Your task to perform on an android device: Open the contacts app Image 0: 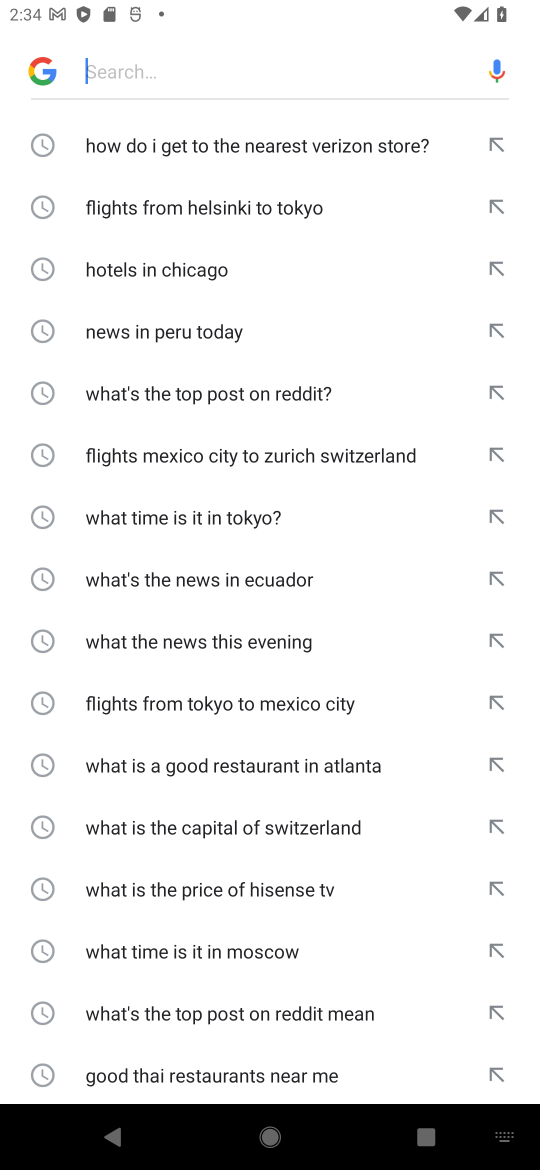
Step 0: press home button
Your task to perform on an android device: Open the contacts app Image 1: 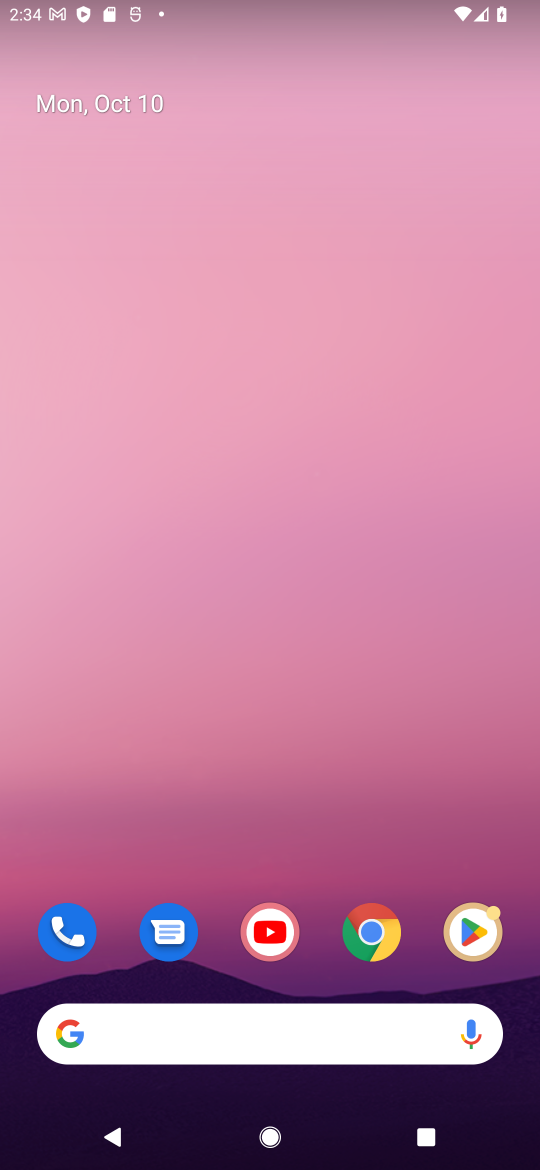
Step 1: drag from (496, 845) to (454, 247)
Your task to perform on an android device: Open the contacts app Image 2: 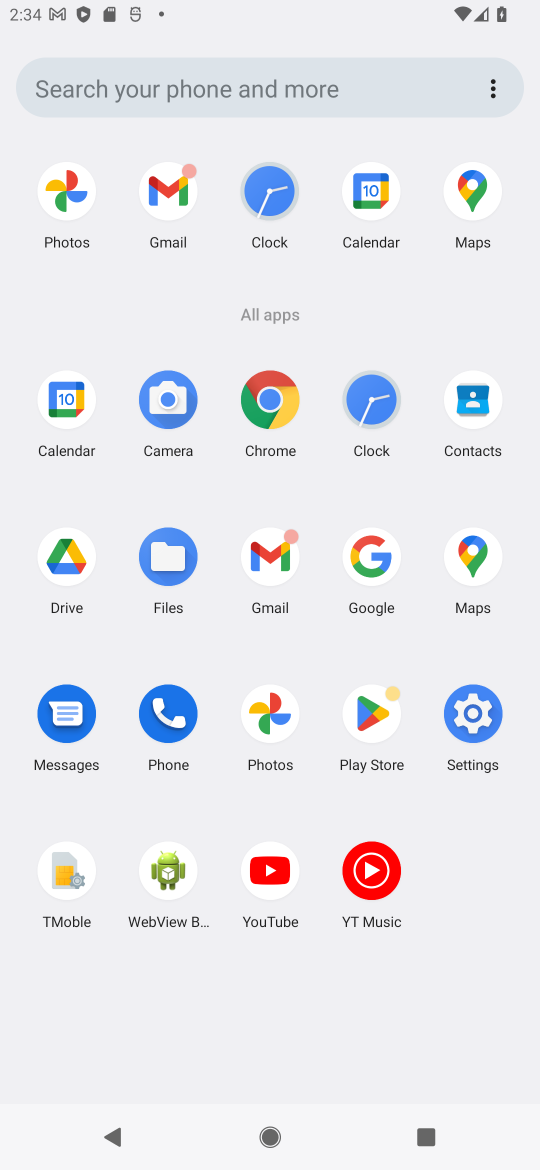
Step 2: click (488, 401)
Your task to perform on an android device: Open the contacts app Image 3: 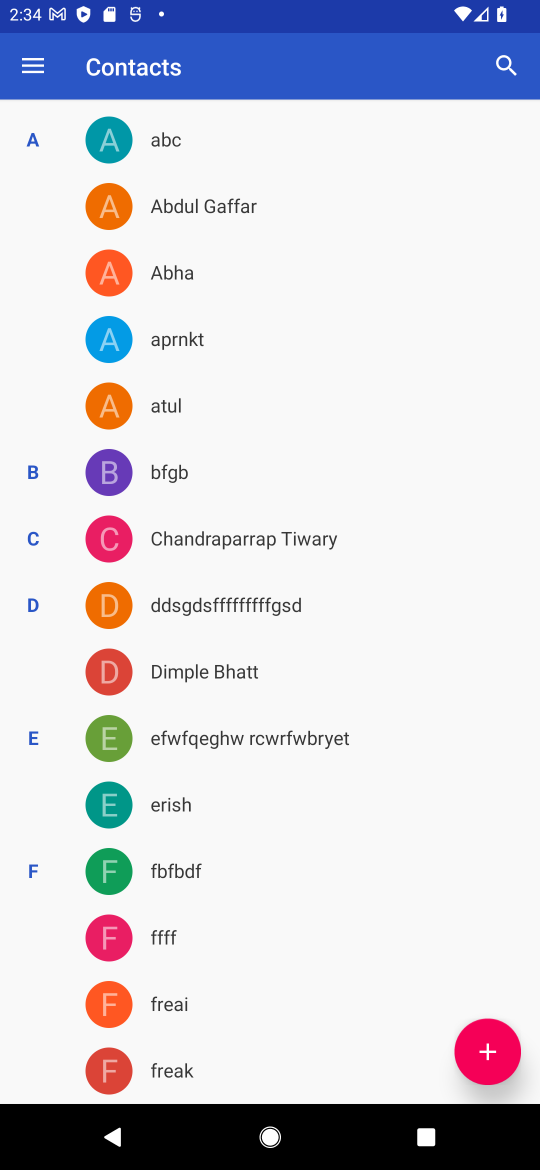
Step 3: task complete